Your task to perform on an android device: Open eBay Image 0: 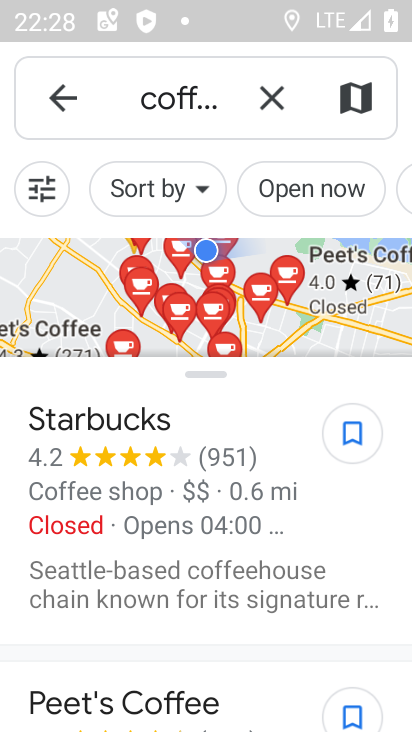
Step 0: press home button
Your task to perform on an android device: Open eBay Image 1: 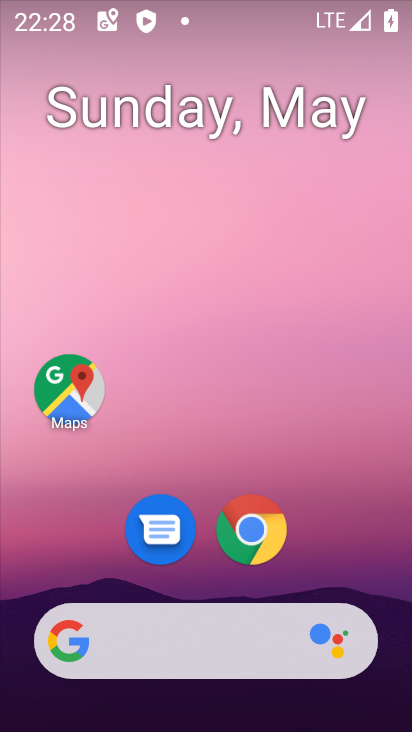
Step 1: click (210, 649)
Your task to perform on an android device: Open eBay Image 2: 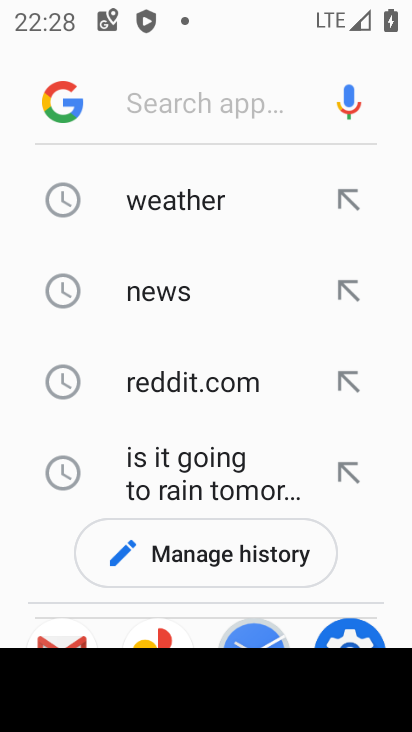
Step 2: type "ebay.com"
Your task to perform on an android device: Open eBay Image 3: 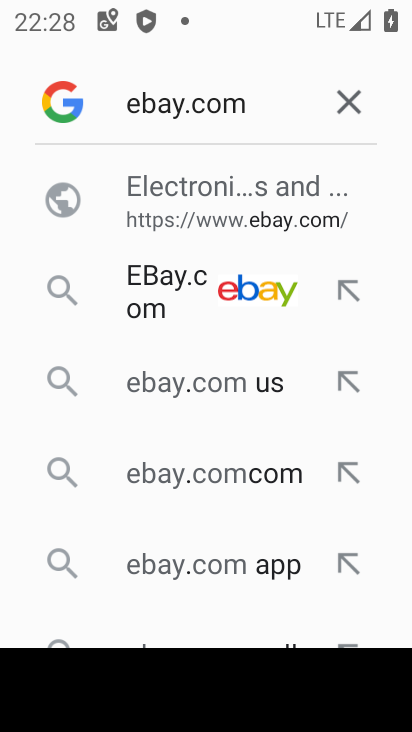
Step 3: click (260, 184)
Your task to perform on an android device: Open eBay Image 4: 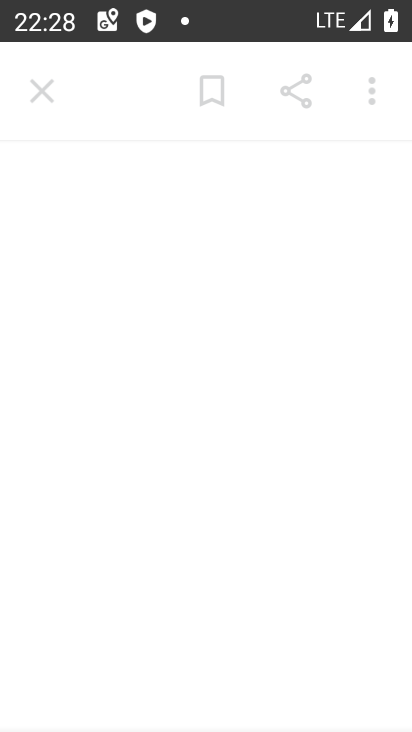
Step 4: task complete